Your task to perform on an android device: create a new album in the google photos Image 0: 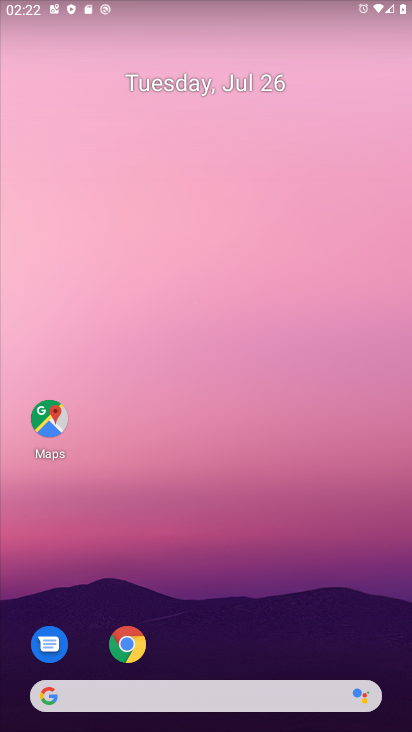
Step 0: drag from (162, 580) to (212, 163)
Your task to perform on an android device: create a new album in the google photos Image 1: 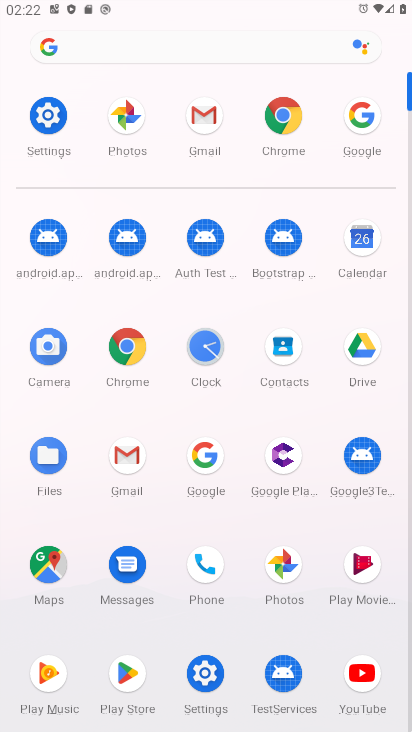
Step 1: click (291, 549)
Your task to perform on an android device: create a new album in the google photos Image 2: 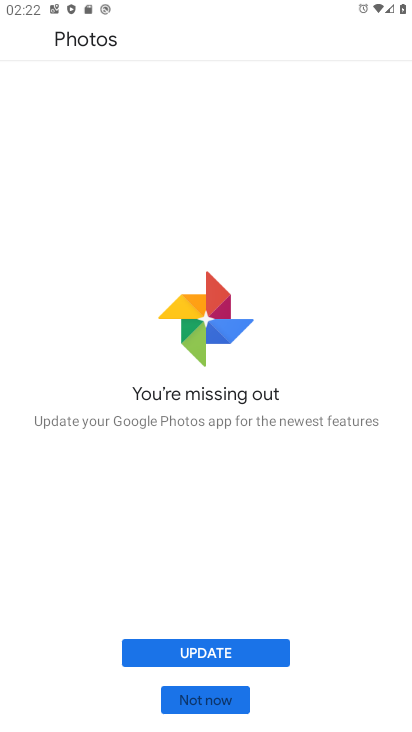
Step 2: click (222, 703)
Your task to perform on an android device: create a new album in the google photos Image 3: 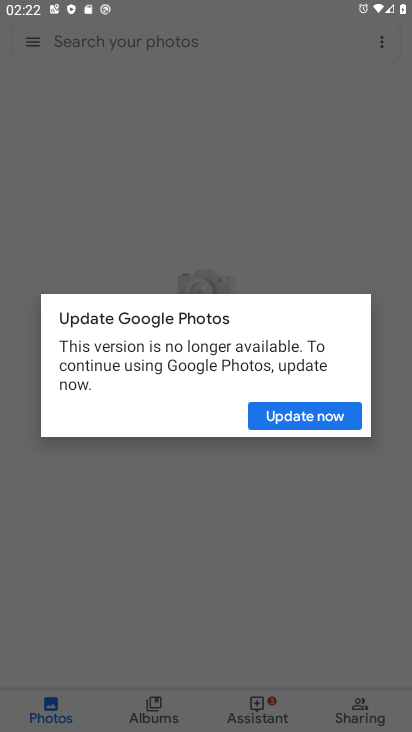
Step 3: click (298, 423)
Your task to perform on an android device: create a new album in the google photos Image 4: 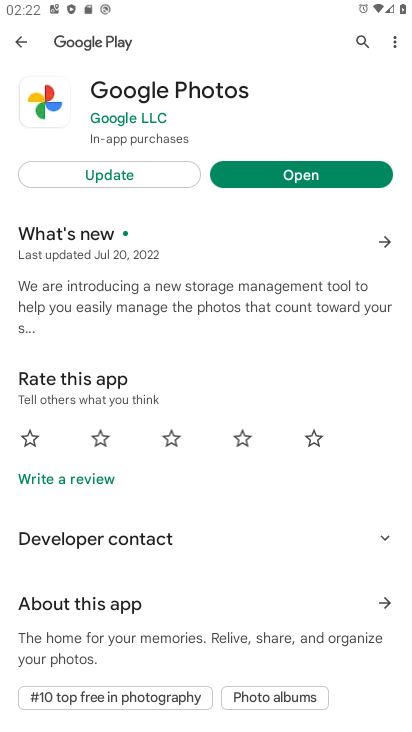
Step 4: press back button
Your task to perform on an android device: create a new album in the google photos Image 5: 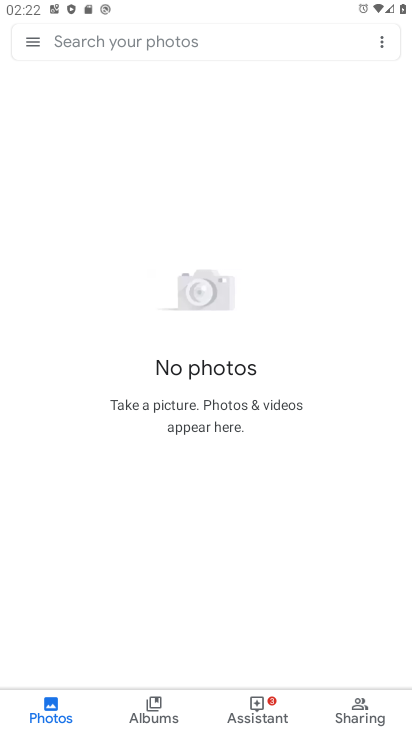
Step 5: click (147, 707)
Your task to perform on an android device: create a new album in the google photos Image 6: 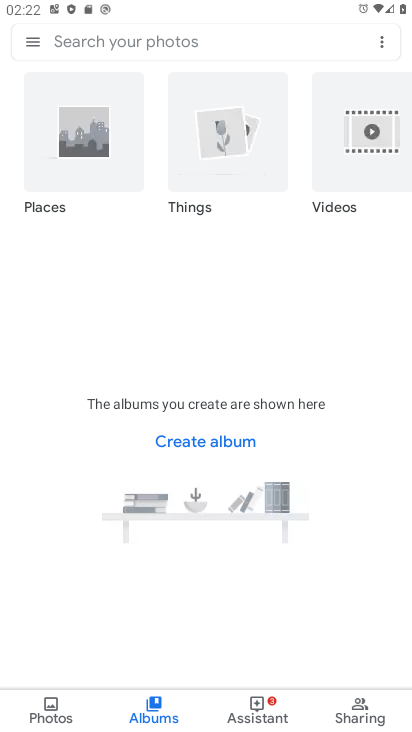
Step 6: click (56, 702)
Your task to perform on an android device: create a new album in the google photos Image 7: 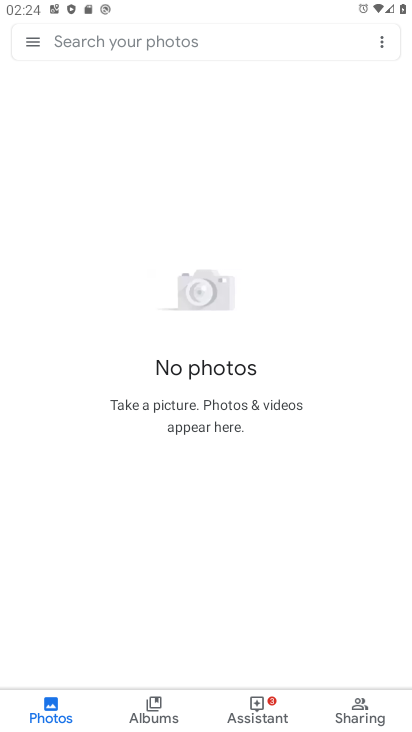
Step 7: task complete